Your task to perform on an android device: show emergency info Image 0: 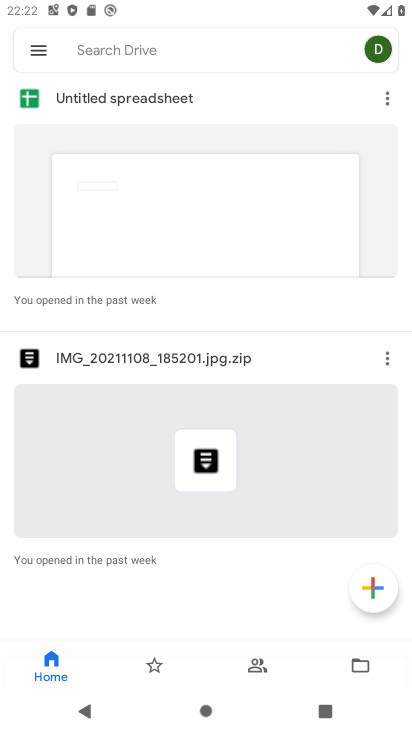
Step 0: press home button
Your task to perform on an android device: show emergency info Image 1: 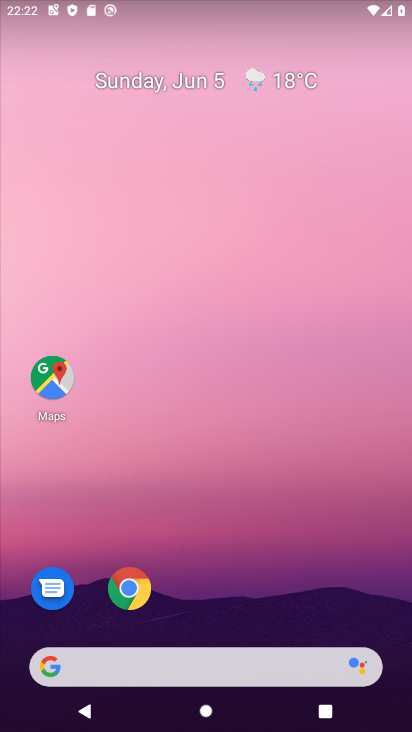
Step 1: drag from (348, 594) to (348, 198)
Your task to perform on an android device: show emergency info Image 2: 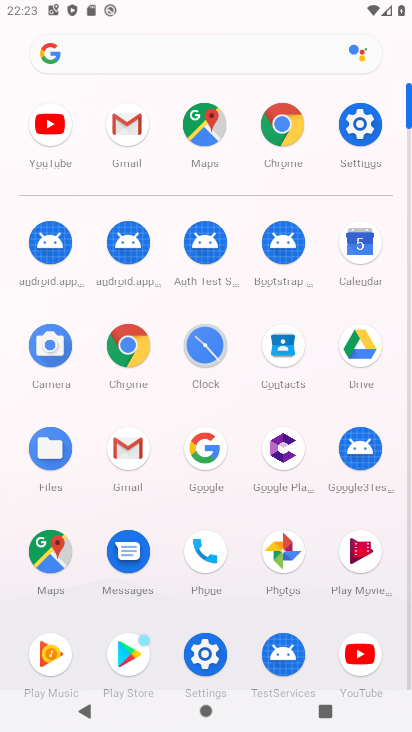
Step 2: click (363, 145)
Your task to perform on an android device: show emergency info Image 3: 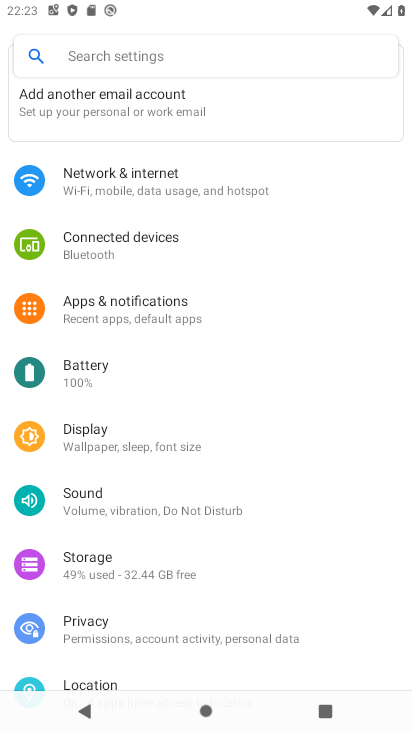
Step 3: drag from (347, 495) to (318, 289)
Your task to perform on an android device: show emergency info Image 4: 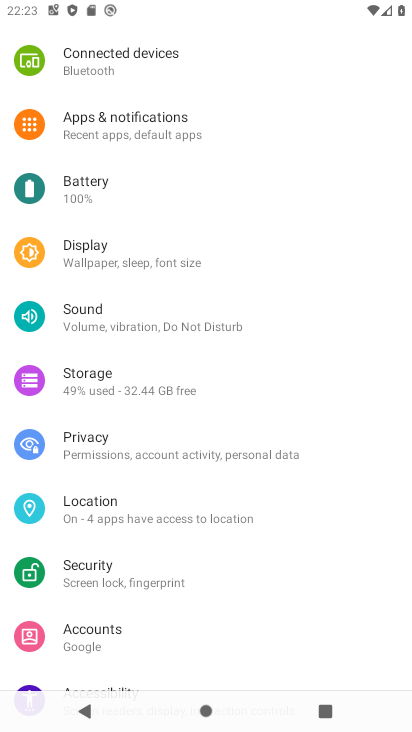
Step 4: drag from (362, 585) to (353, 392)
Your task to perform on an android device: show emergency info Image 5: 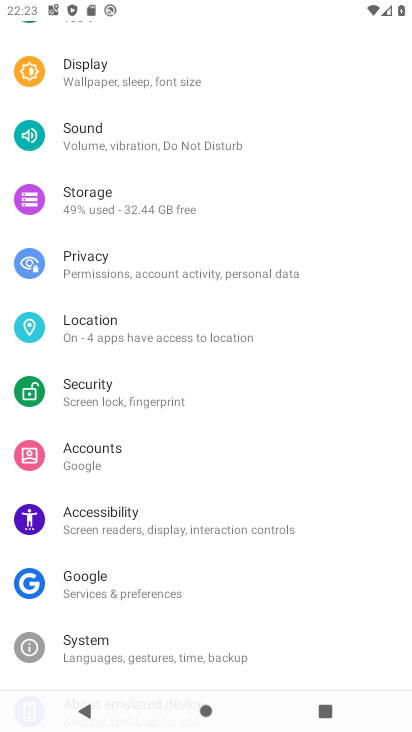
Step 5: drag from (359, 605) to (355, 449)
Your task to perform on an android device: show emergency info Image 6: 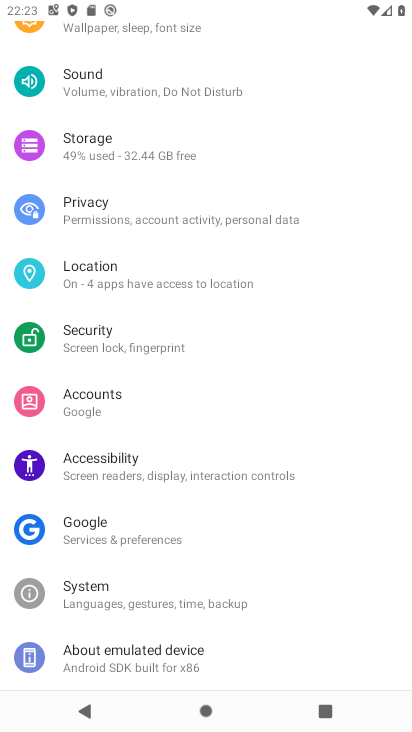
Step 6: drag from (329, 624) to (332, 416)
Your task to perform on an android device: show emergency info Image 7: 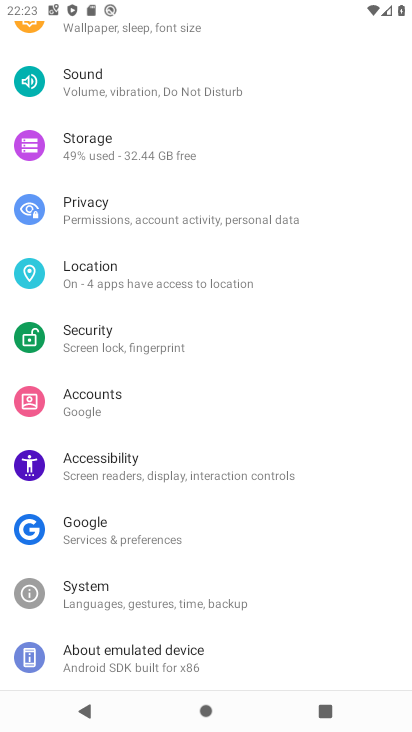
Step 7: click (166, 665)
Your task to perform on an android device: show emergency info Image 8: 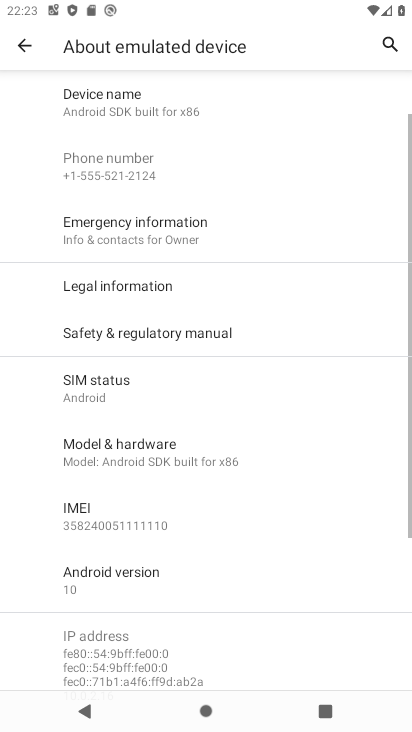
Step 8: click (198, 240)
Your task to perform on an android device: show emergency info Image 9: 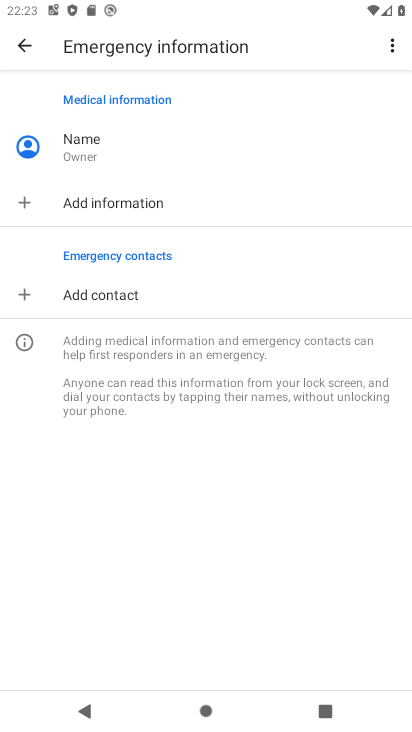
Step 9: task complete